Your task to perform on an android device: open app "The Home Depot" (install if not already installed) Image 0: 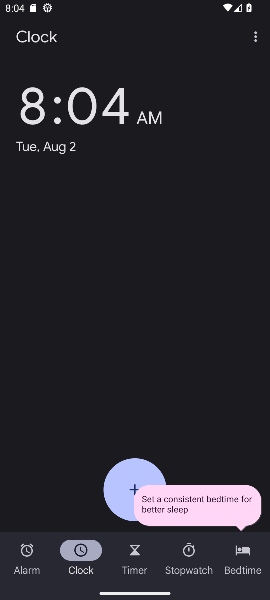
Step 0: press back button
Your task to perform on an android device: open app "The Home Depot" (install if not already installed) Image 1: 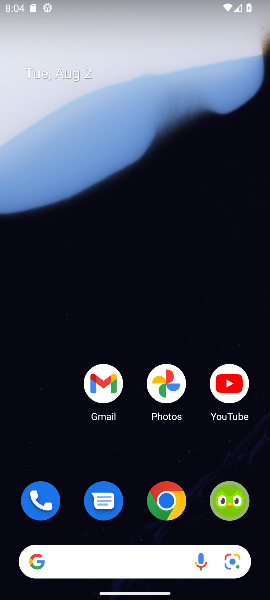
Step 1: drag from (149, 503) to (148, 112)
Your task to perform on an android device: open app "The Home Depot" (install if not already installed) Image 2: 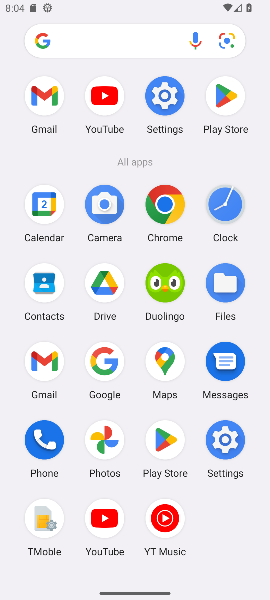
Step 2: click (219, 101)
Your task to perform on an android device: open app "The Home Depot" (install if not already installed) Image 3: 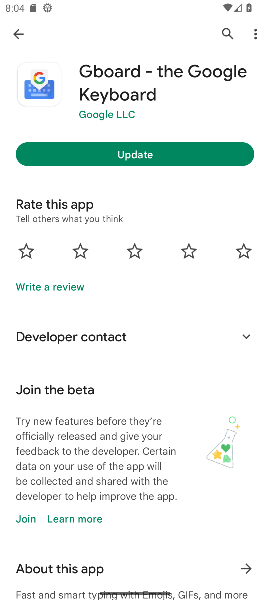
Step 3: type "The Home Depot"
Your task to perform on an android device: open app "The Home Depot" (install if not already installed) Image 4: 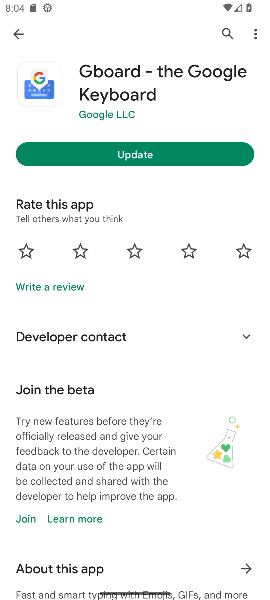
Step 4: type ""
Your task to perform on an android device: open app "The Home Depot" (install if not already installed) Image 5: 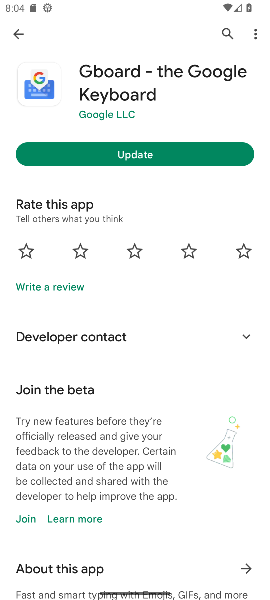
Step 5: click (226, 31)
Your task to perform on an android device: open app "The Home Depot" (install if not already installed) Image 6: 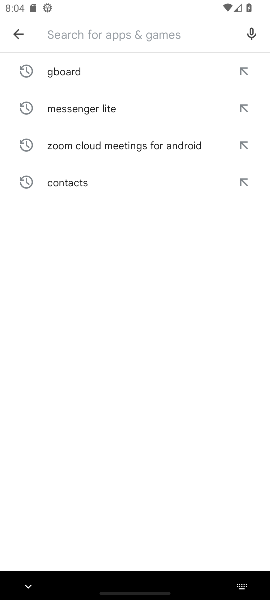
Step 6: click (226, 31)
Your task to perform on an android device: open app "The Home Depot" (install if not already installed) Image 7: 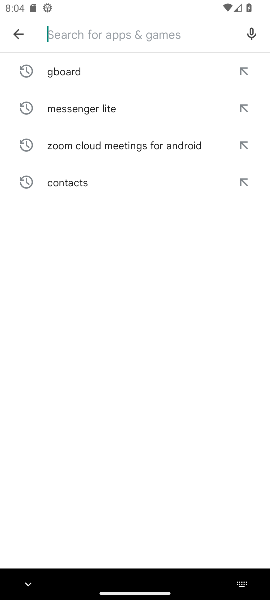
Step 7: type "The Home Depot"
Your task to perform on an android device: open app "The Home Depot" (install if not already installed) Image 8: 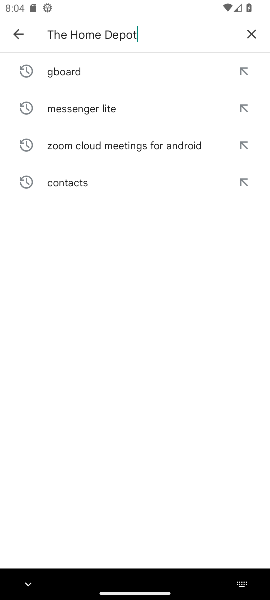
Step 8: type ""
Your task to perform on an android device: open app "The Home Depot" (install if not already installed) Image 9: 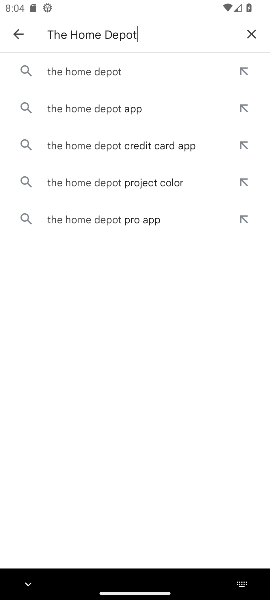
Step 9: click (80, 67)
Your task to perform on an android device: open app "The Home Depot" (install if not already installed) Image 10: 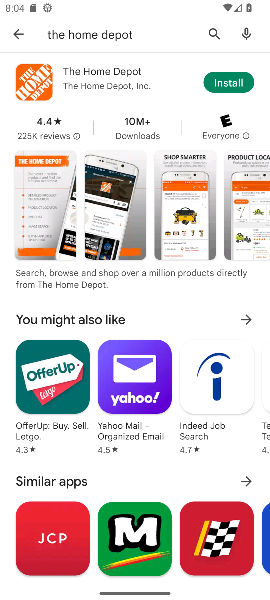
Step 10: click (232, 81)
Your task to perform on an android device: open app "The Home Depot" (install if not already installed) Image 11: 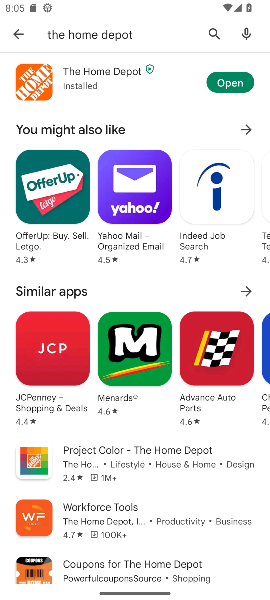
Step 11: drag from (114, 542) to (161, 254)
Your task to perform on an android device: open app "The Home Depot" (install if not already installed) Image 12: 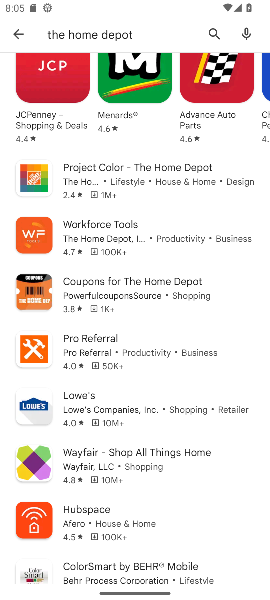
Step 12: drag from (160, 421) to (219, 116)
Your task to perform on an android device: open app "The Home Depot" (install if not already installed) Image 13: 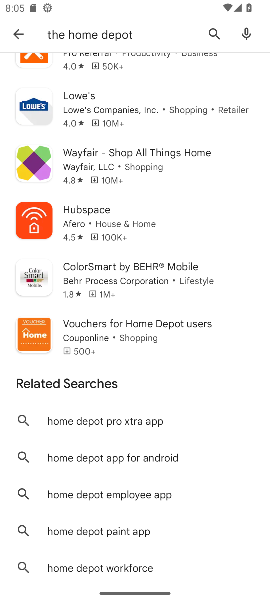
Step 13: click (163, 38)
Your task to perform on an android device: open app "The Home Depot" (install if not already installed) Image 14: 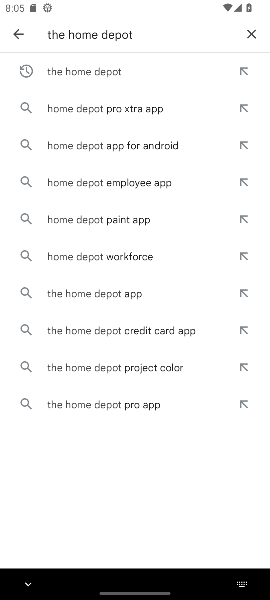
Step 14: drag from (148, 136) to (145, 394)
Your task to perform on an android device: open app "The Home Depot" (install if not already installed) Image 15: 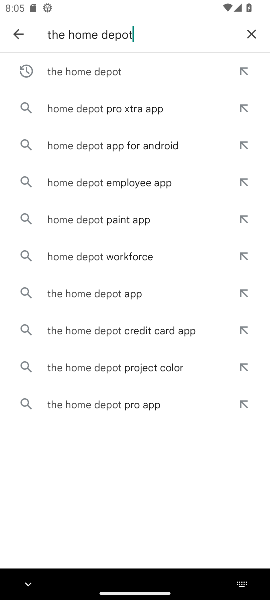
Step 15: click (129, 74)
Your task to perform on an android device: open app "The Home Depot" (install if not already installed) Image 16: 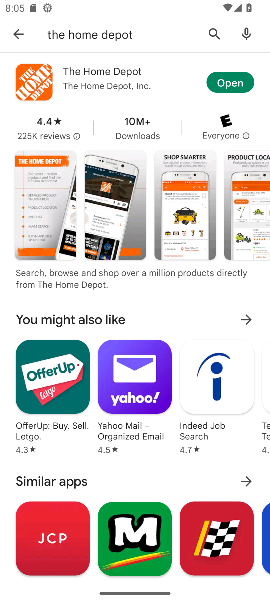
Step 16: click (93, 65)
Your task to perform on an android device: open app "The Home Depot" (install if not already installed) Image 17: 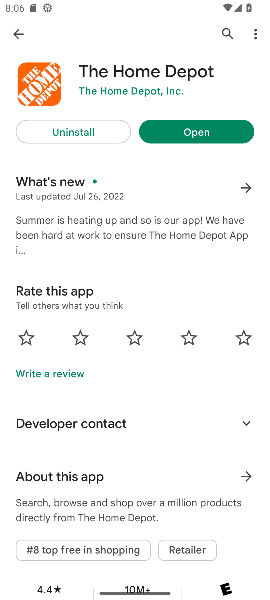
Step 17: drag from (114, 176) to (13, 256)
Your task to perform on an android device: open app "The Home Depot" (install if not already installed) Image 18: 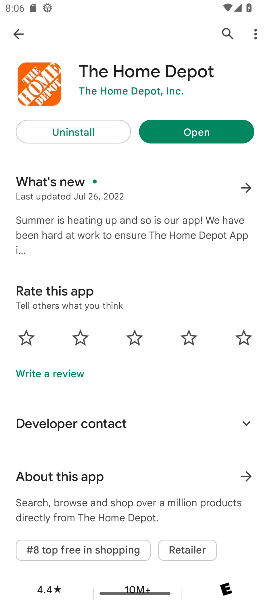
Step 18: drag from (144, 188) to (140, 424)
Your task to perform on an android device: open app "The Home Depot" (install if not already installed) Image 19: 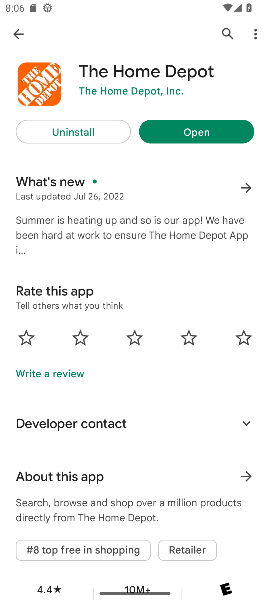
Step 19: drag from (158, 101) to (188, 394)
Your task to perform on an android device: open app "The Home Depot" (install if not already installed) Image 20: 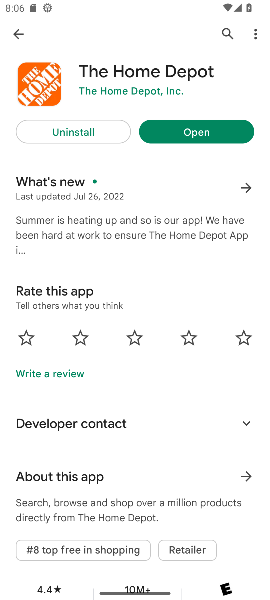
Step 20: drag from (124, 109) to (203, 583)
Your task to perform on an android device: open app "The Home Depot" (install if not already installed) Image 21: 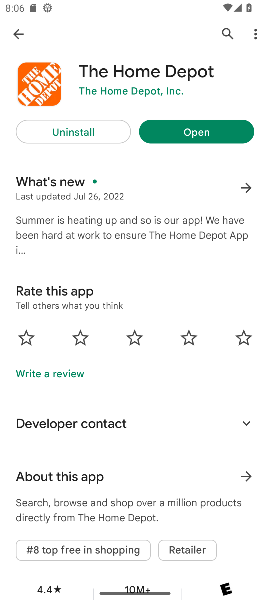
Step 21: drag from (122, 152) to (267, 235)
Your task to perform on an android device: open app "The Home Depot" (install if not already installed) Image 22: 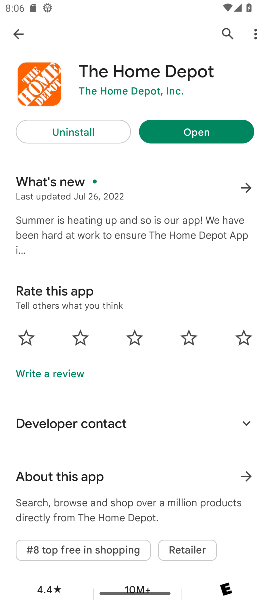
Step 22: click (212, 138)
Your task to perform on an android device: open app "The Home Depot" (install if not already installed) Image 23: 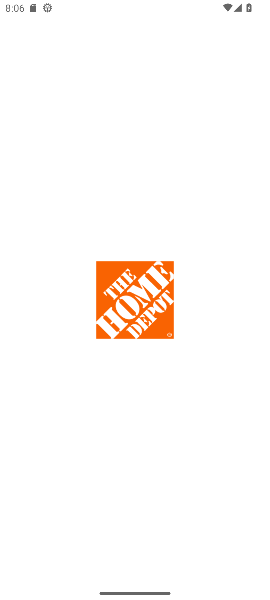
Step 23: task complete